Your task to perform on an android device: open app "ZOOM Cloud Meetings" Image 0: 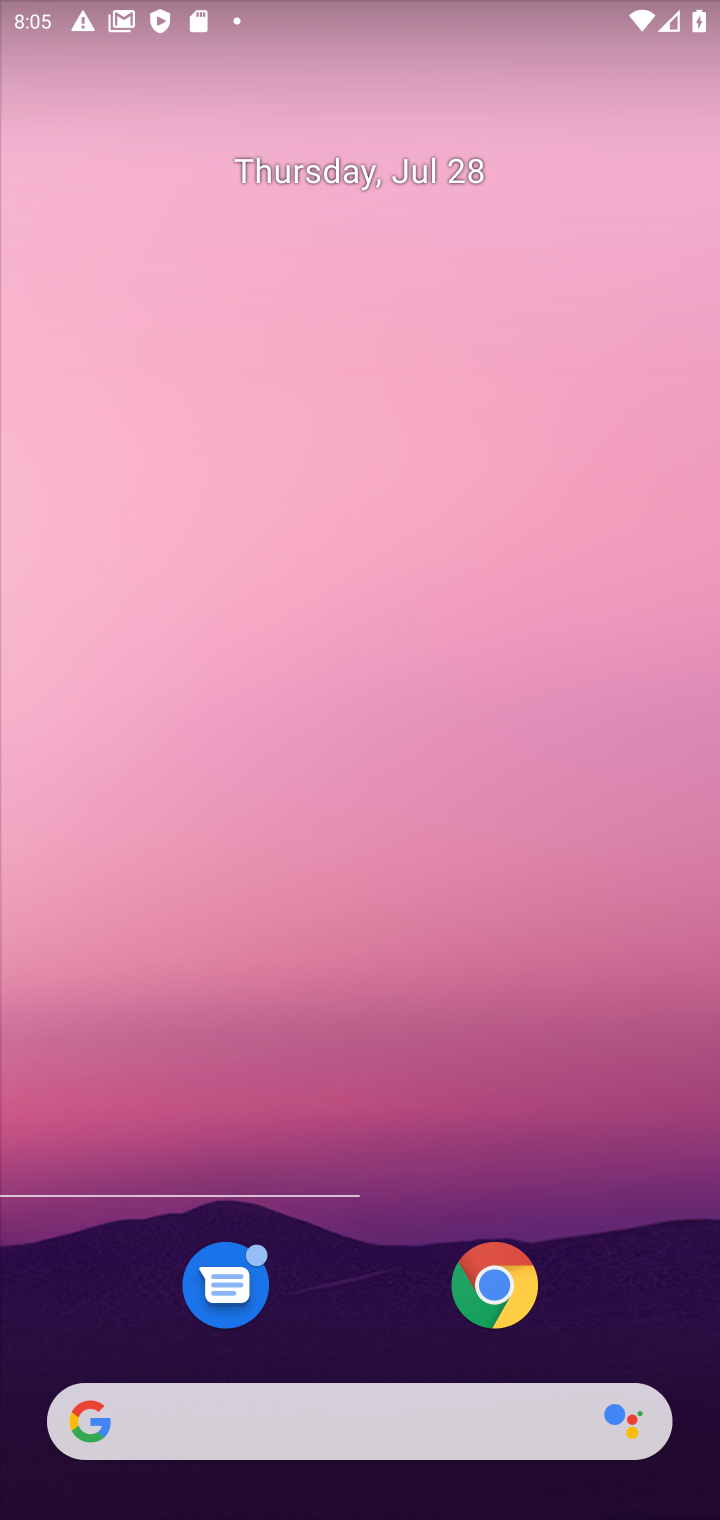
Step 0: press home button
Your task to perform on an android device: open app "ZOOM Cloud Meetings" Image 1: 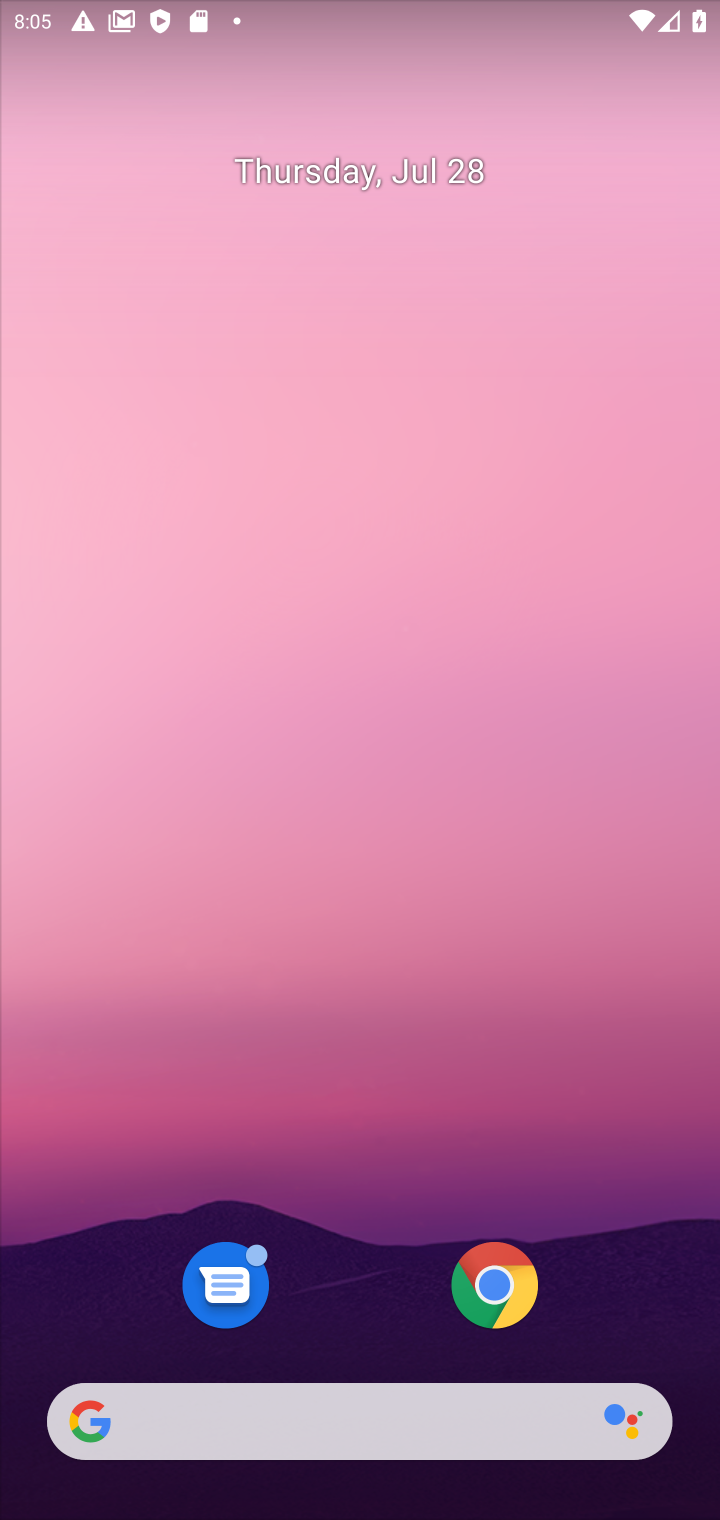
Step 1: drag from (326, 1409) to (361, 282)
Your task to perform on an android device: open app "ZOOM Cloud Meetings" Image 2: 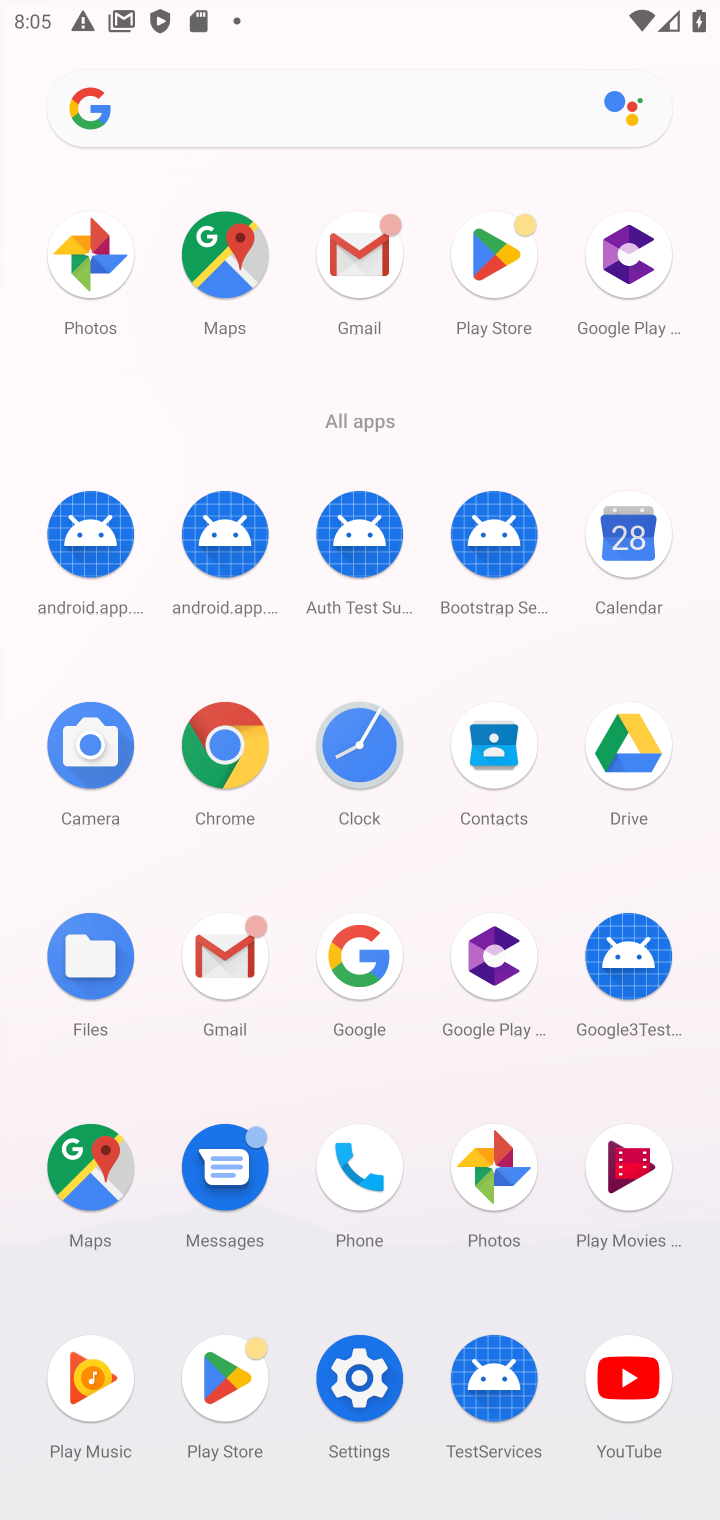
Step 2: click (508, 213)
Your task to perform on an android device: open app "ZOOM Cloud Meetings" Image 3: 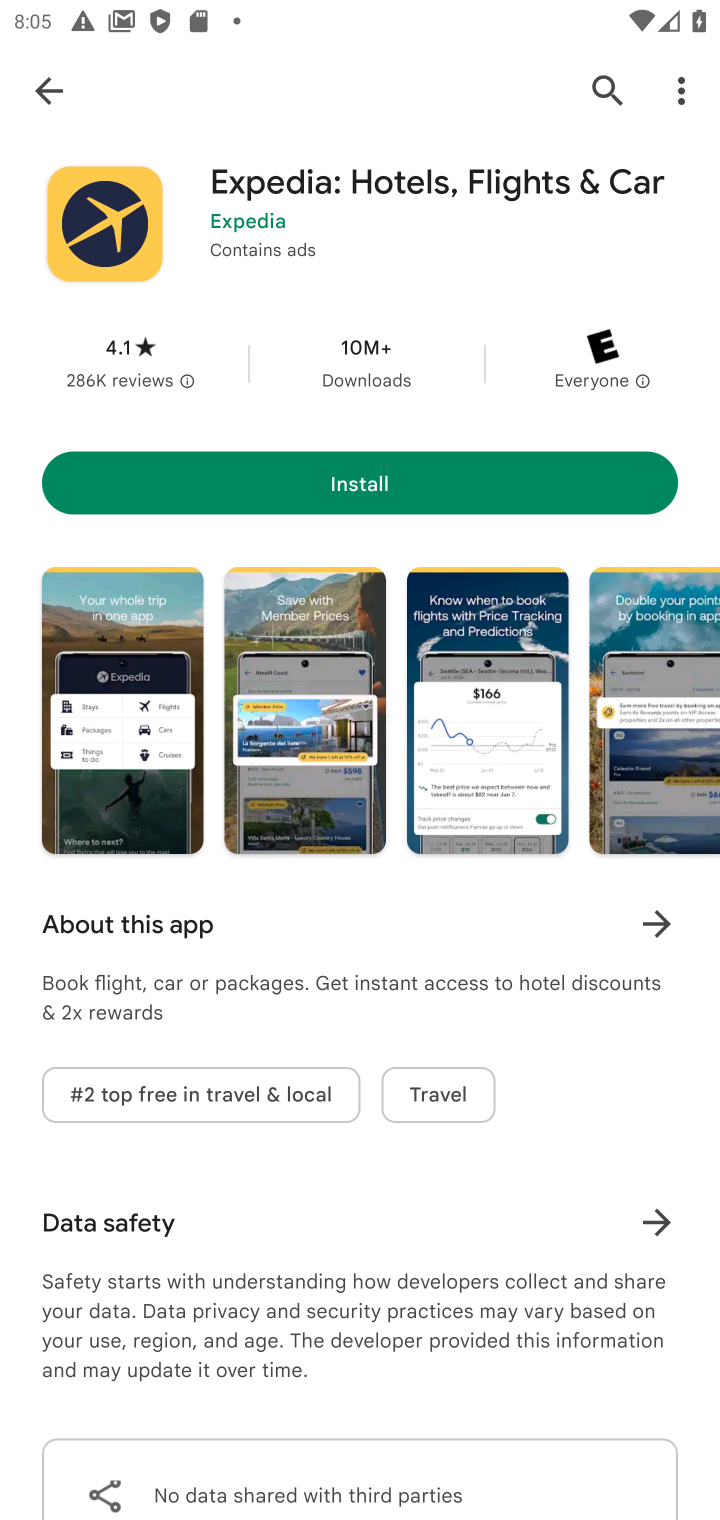
Step 3: click (604, 69)
Your task to perform on an android device: open app "ZOOM Cloud Meetings" Image 4: 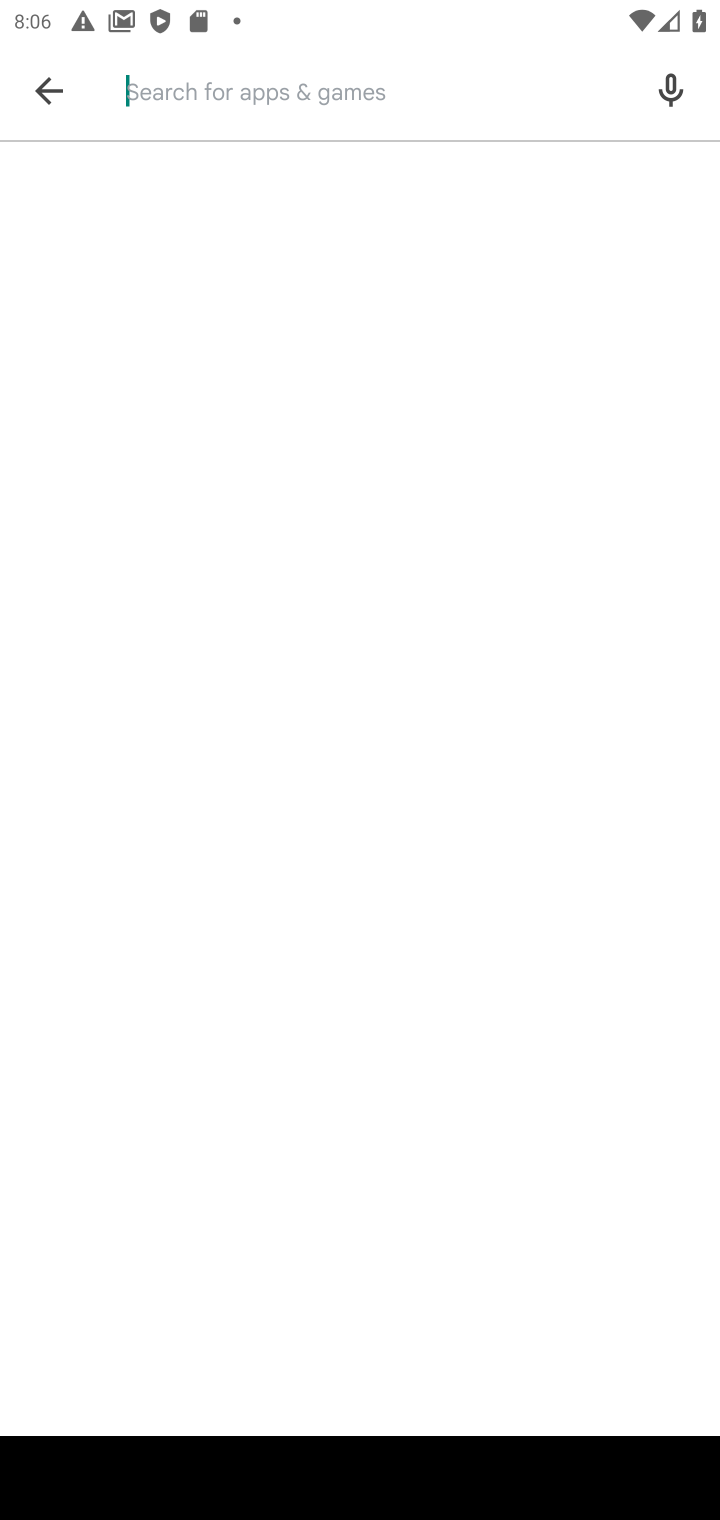
Step 4: type "ZOOM Cloud Meetings"
Your task to perform on an android device: open app "ZOOM Cloud Meetings" Image 5: 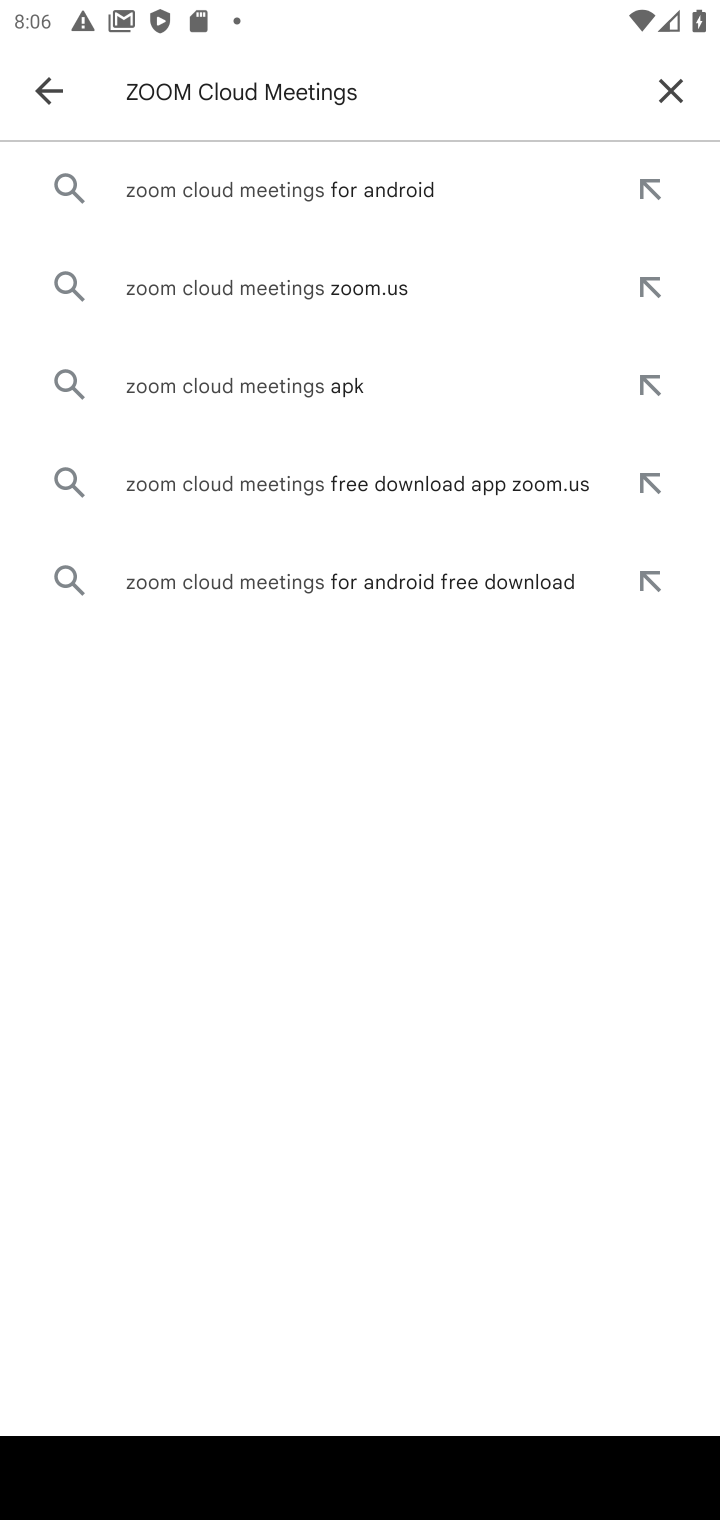
Step 5: click (250, 192)
Your task to perform on an android device: open app "ZOOM Cloud Meetings" Image 6: 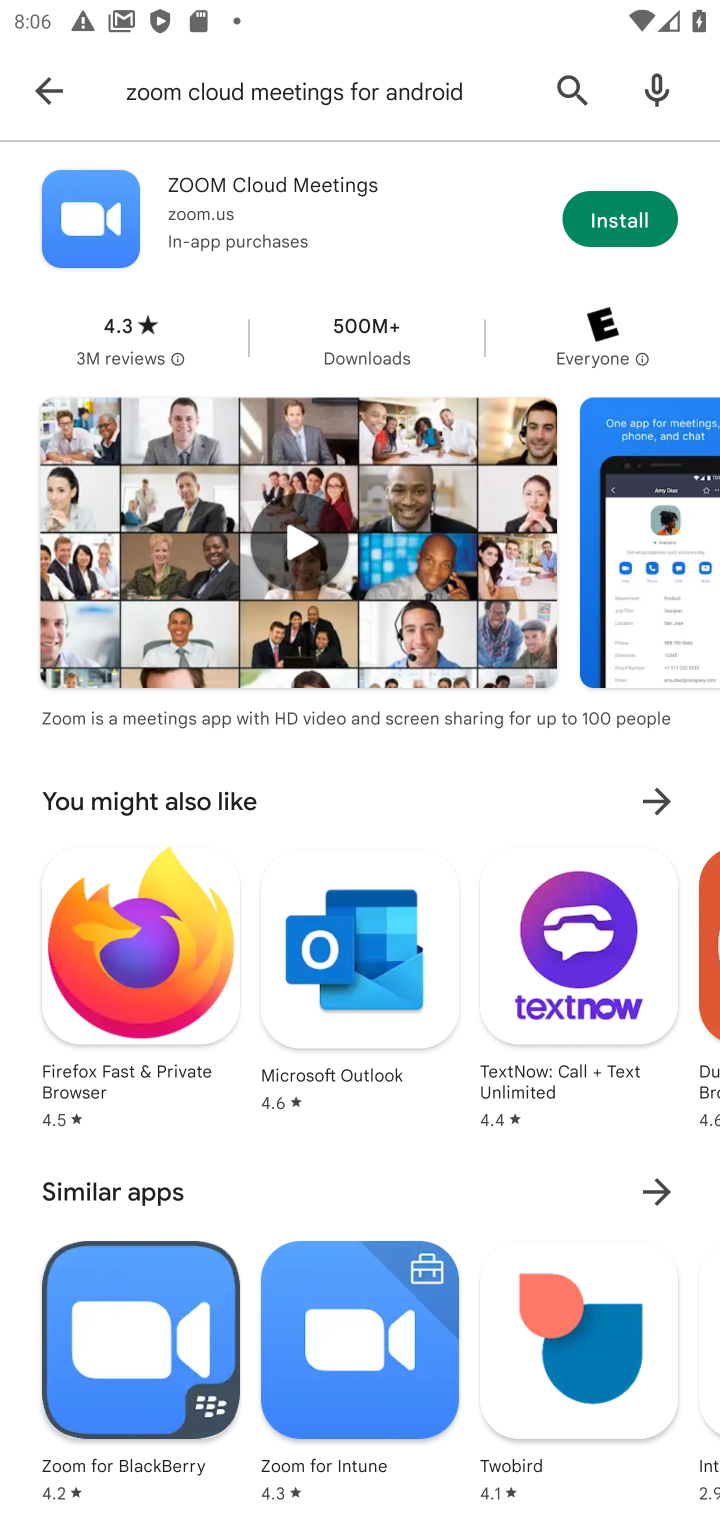
Step 6: task complete